Your task to perform on an android device: open a bookmark in the chrome app Image 0: 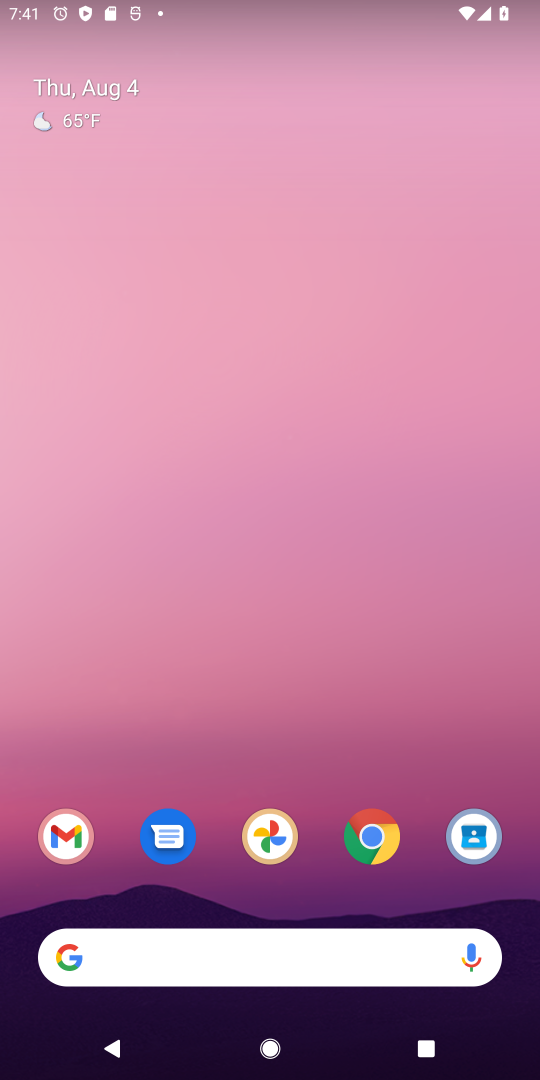
Step 0: click (381, 857)
Your task to perform on an android device: open a bookmark in the chrome app Image 1: 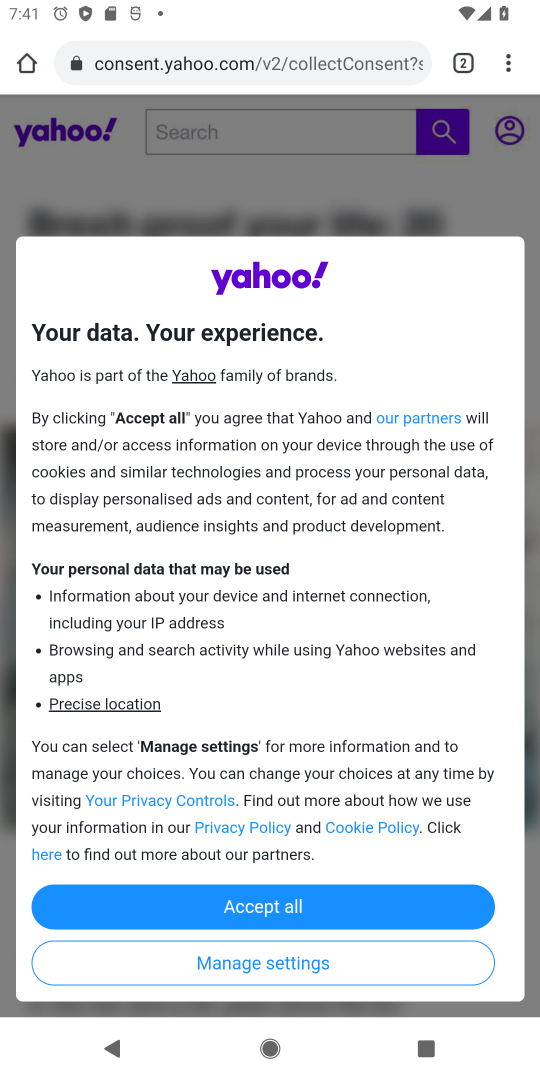
Step 1: drag from (502, 60) to (346, 416)
Your task to perform on an android device: open a bookmark in the chrome app Image 2: 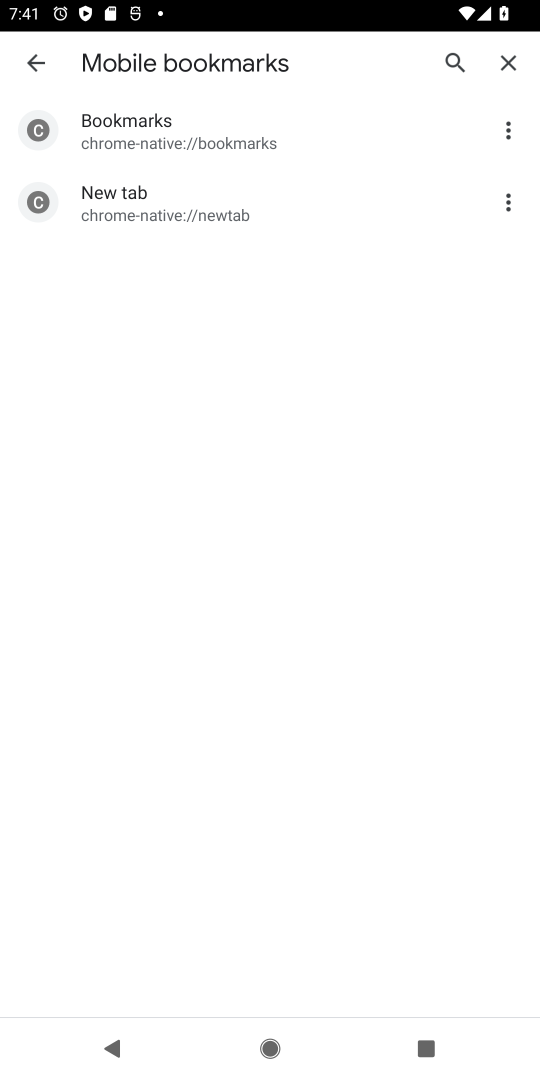
Step 2: click (172, 202)
Your task to perform on an android device: open a bookmark in the chrome app Image 3: 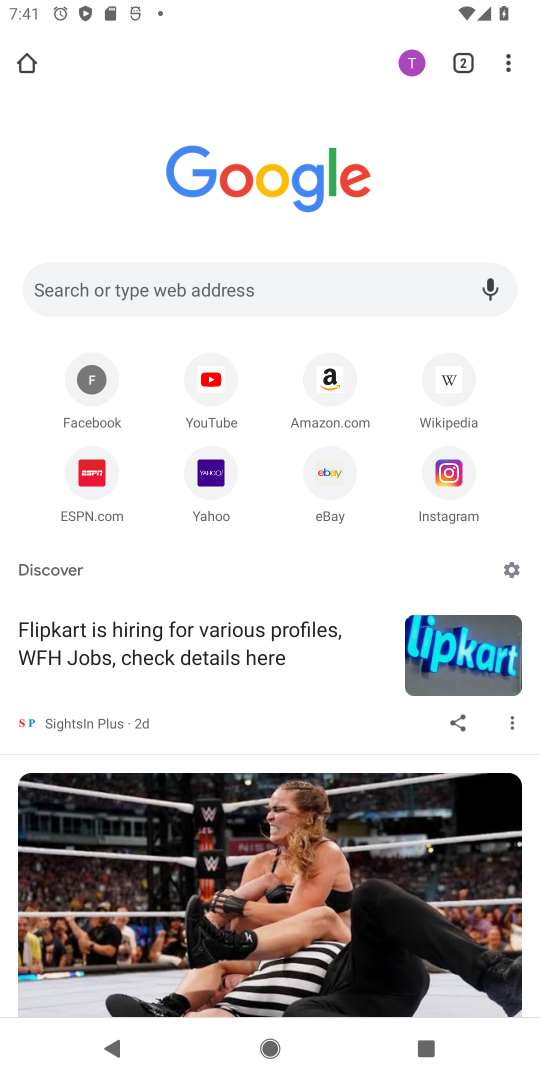
Step 3: task complete